Your task to perform on an android device: Turn off the flashlight Image 0: 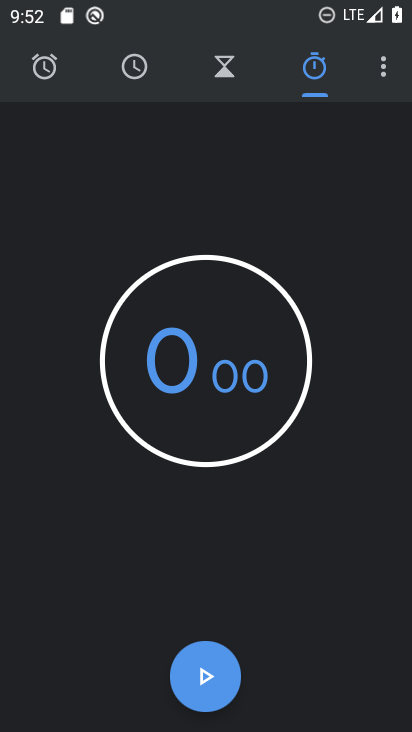
Step 0: press home button
Your task to perform on an android device: Turn off the flashlight Image 1: 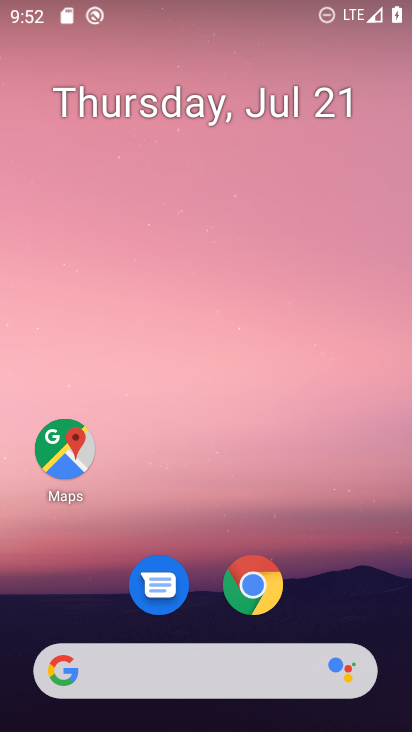
Step 1: drag from (343, 586) to (295, 19)
Your task to perform on an android device: Turn off the flashlight Image 2: 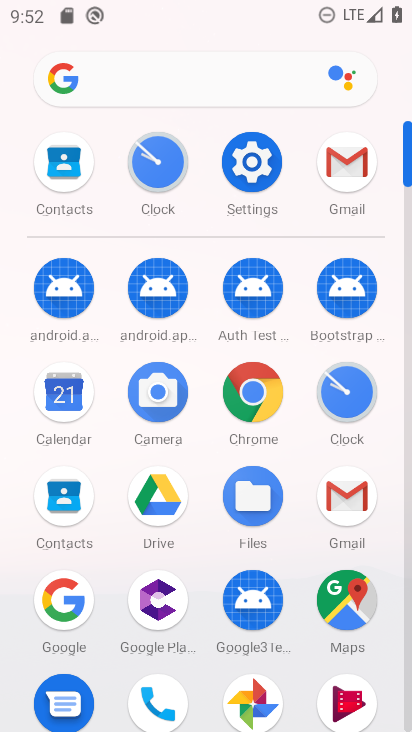
Step 2: click (263, 152)
Your task to perform on an android device: Turn off the flashlight Image 3: 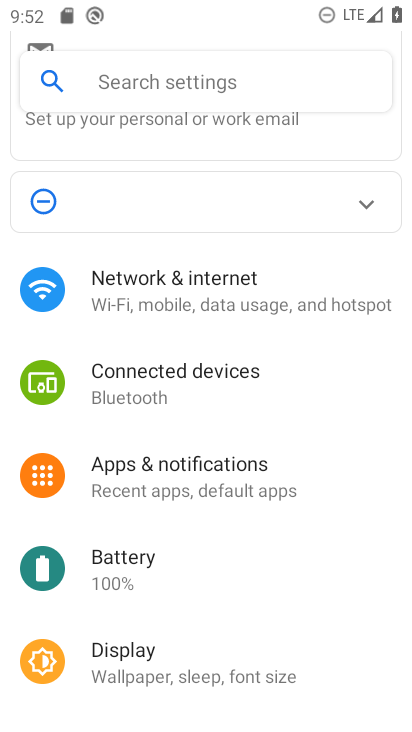
Step 3: drag from (248, 428) to (211, 620)
Your task to perform on an android device: Turn off the flashlight Image 4: 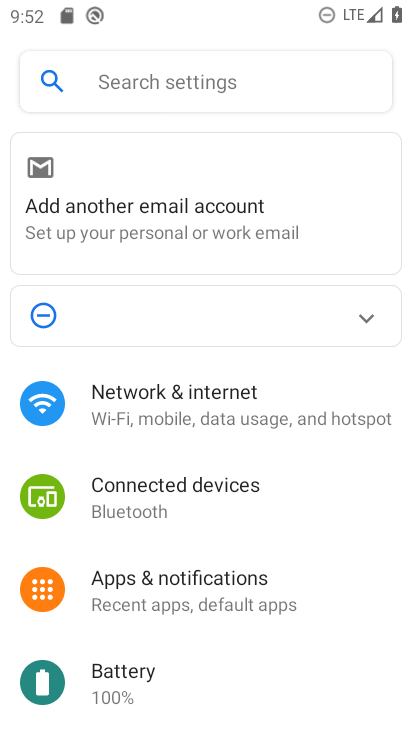
Step 4: click (260, 76)
Your task to perform on an android device: Turn off the flashlight Image 5: 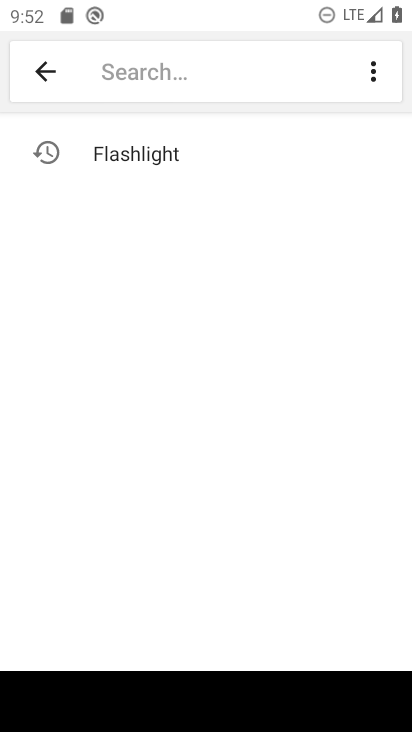
Step 5: click (157, 148)
Your task to perform on an android device: Turn off the flashlight Image 6: 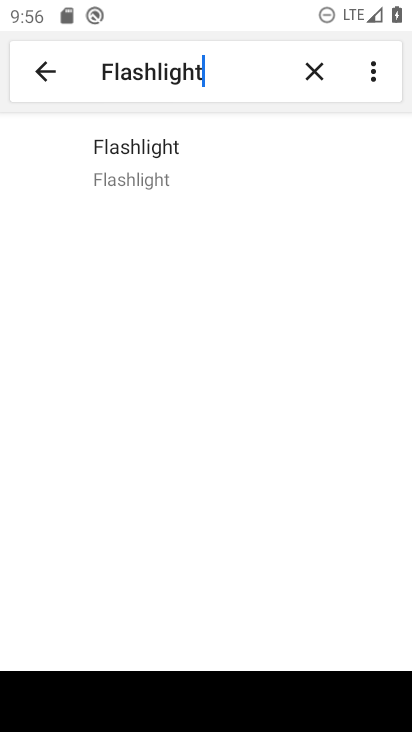
Step 6: task complete